Your task to perform on an android device: turn off translation in the chrome app Image 0: 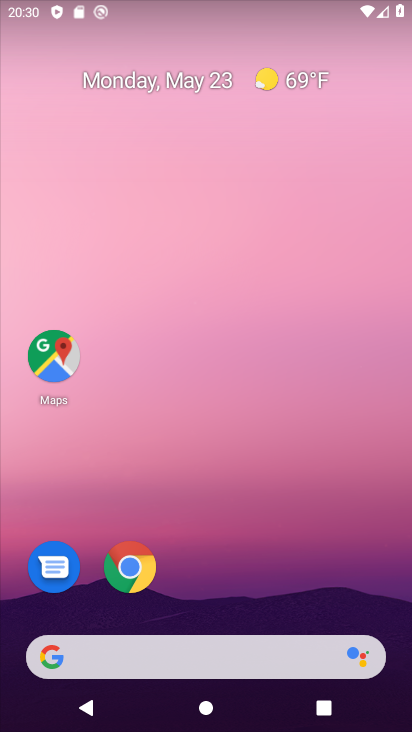
Step 0: click (139, 565)
Your task to perform on an android device: turn off translation in the chrome app Image 1: 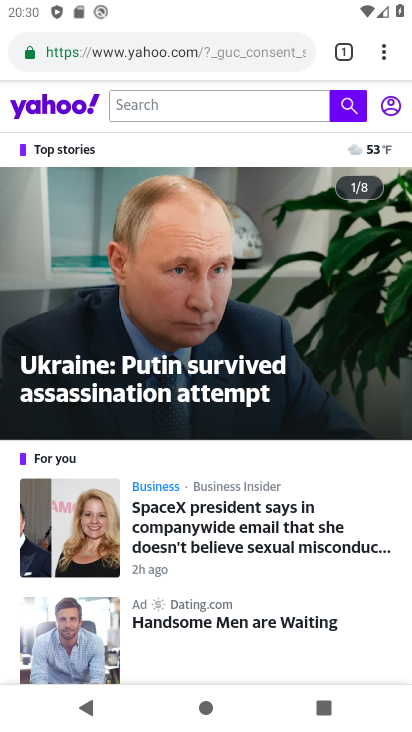
Step 1: click (391, 58)
Your task to perform on an android device: turn off translation in the chrome app Image 2: 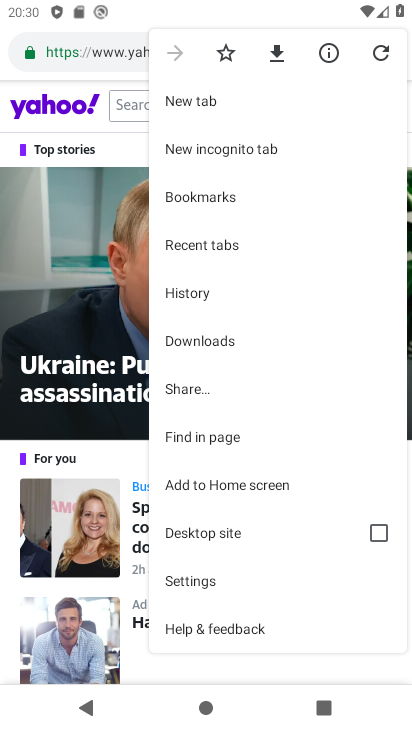
Step 2: click (196, 588)
Your task to perform on an android device: turn off translation in the chrome app Image 3: 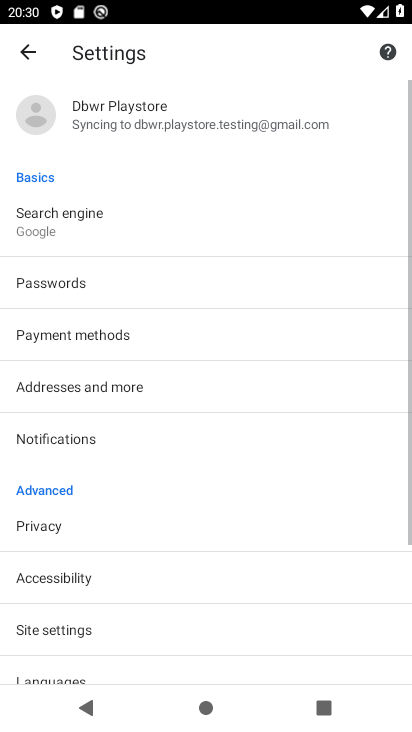
Step 3: drag from (97, 632) to (141, 441)
Your task to perform on an android device: turn off translation in the chrome app Image 4: 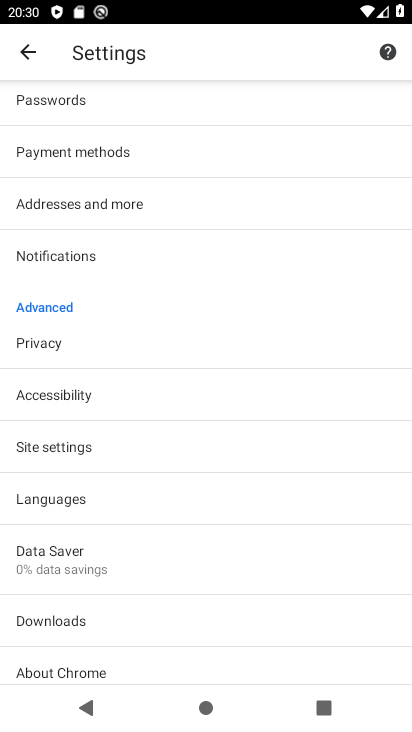
Step 4: click (94, 501)
Your task to perform on an android device: turn off translation in the chrome app Image 5: 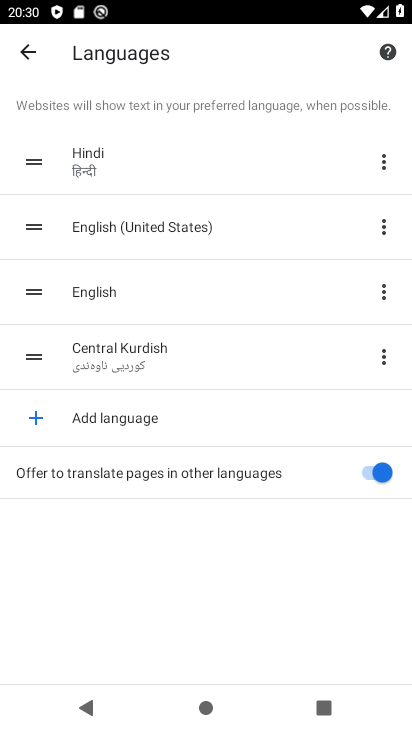
Step 5: click (361, 479)
Your task to perform on an android device: turn off translation in the chrome app Image 6: 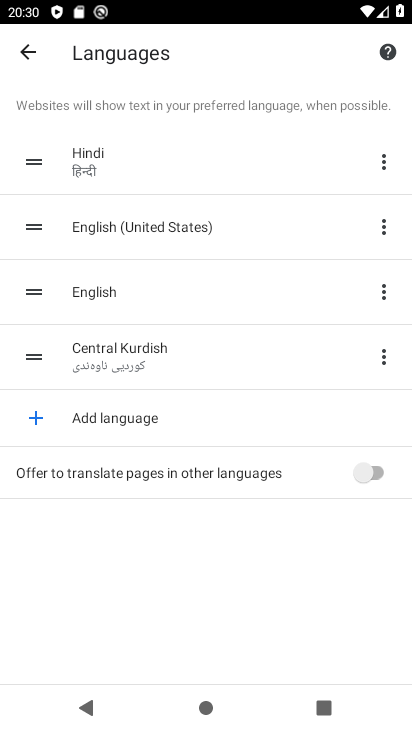
Step 6: task complete